Your task to perform on an android device: read, delete, or share a saved page in the chrome app Image 0: 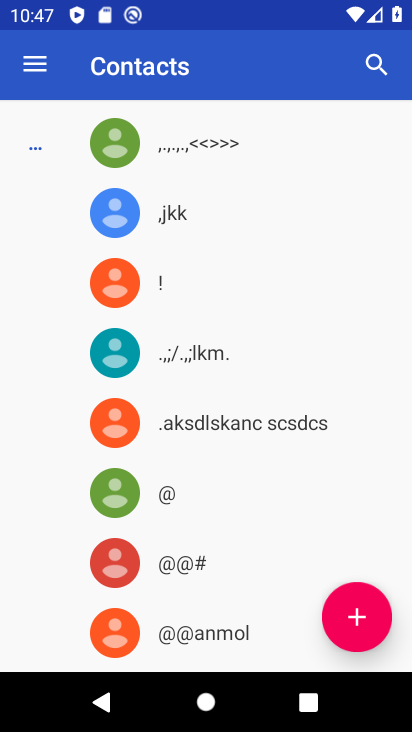
Step 0: press back button
Your task to perform on an android device: read, delete, or share a saved page in the chrome app Image 1: 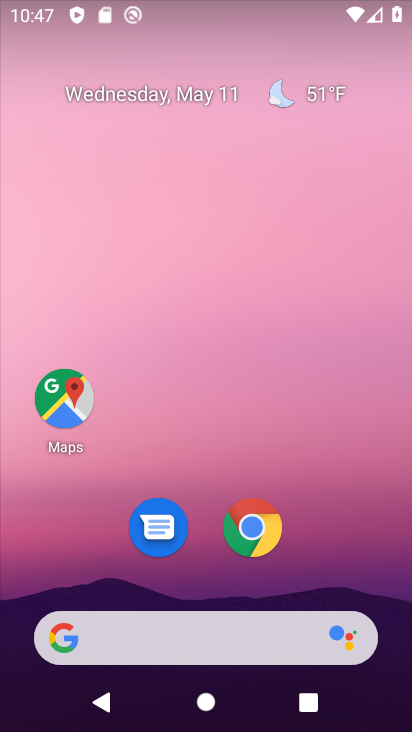
Step 1: click (248, 525)
Your task to perform on an android device: read, delete, or share a saved page in the chrome app Image 2: 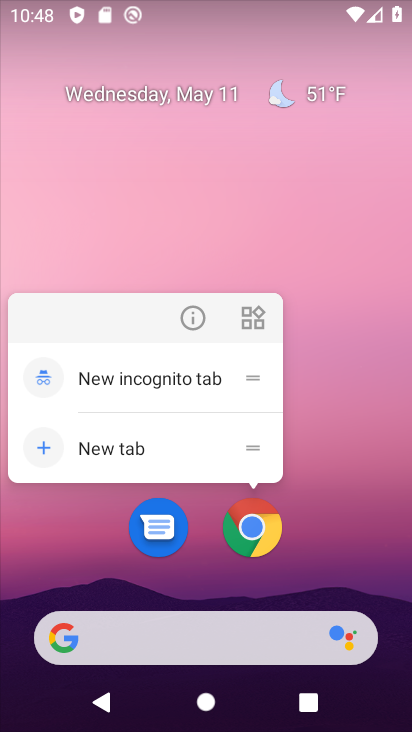
Step 2: click (249, 525)
Your task to perform on an android device: read, delete, or share a saved page in the chrome app Image 3: 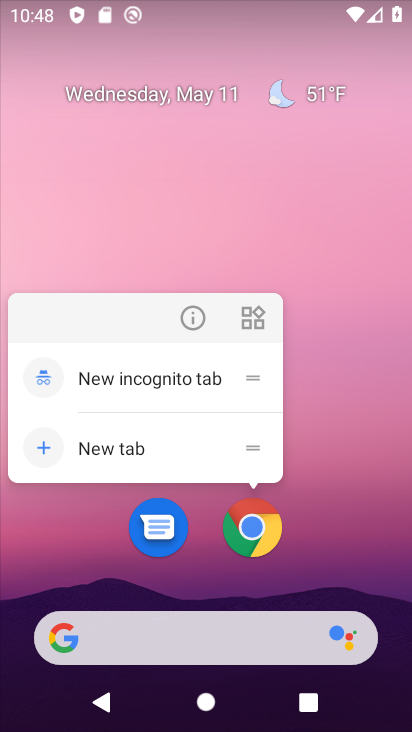
Step 3: click (254, 529)
Your task to perform on an android device: read, delete, or share a saved page in the chrome app Image 4: 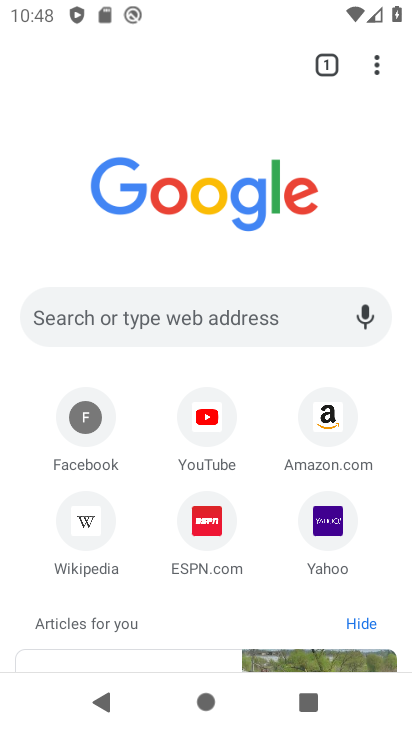
Step 4: click (376, 63)
Your task to perform on an android device: read, delete, or share a saved page in the chrome app Image 5: 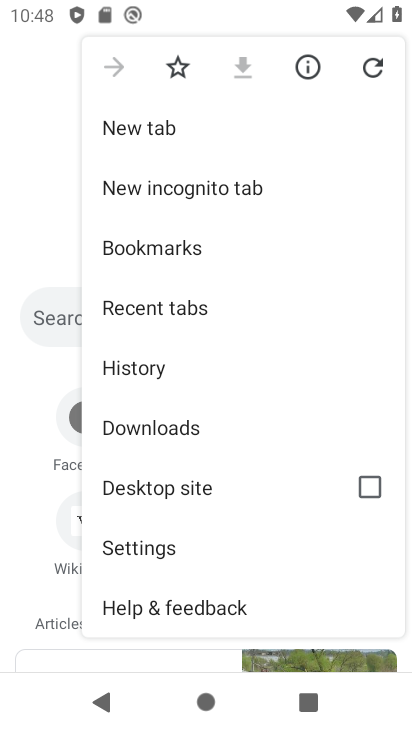
Step 5: click (157, 432)
Your task to perform on an android device: read, delete, or share a saved page in the chrome app Image 6: 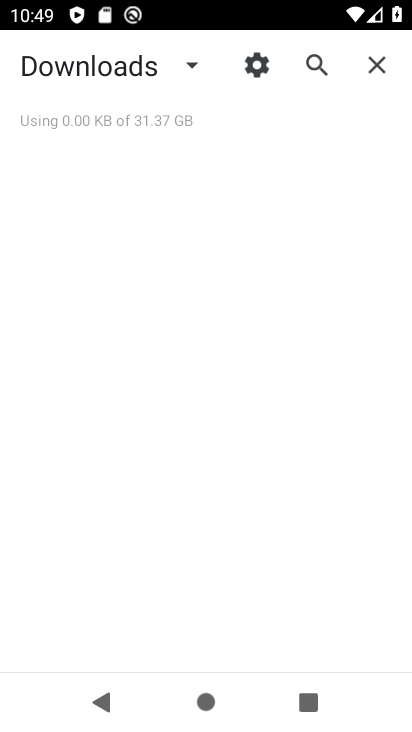
Step 6: task complete